Your task to perform on an android device: Open Yahoo.com Image 0: 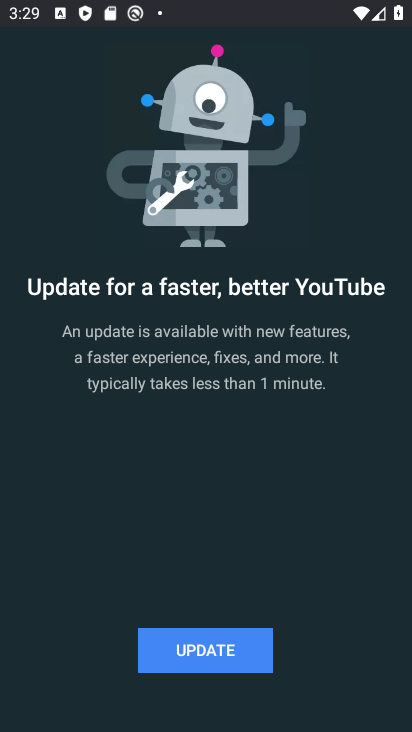
Step 0: press home button
Your task to perform on an android device: Open Yahoo.com Image 1: 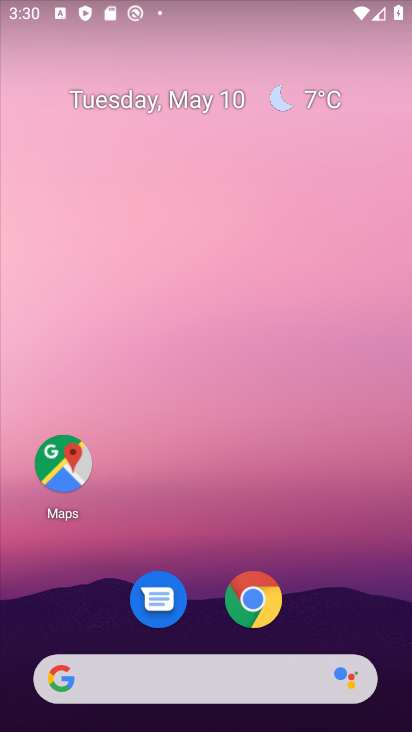
Step 1: drag from (279, 570) to (274, 174)
Your task to perform on an android device: Open Yahoo.com Image 2: 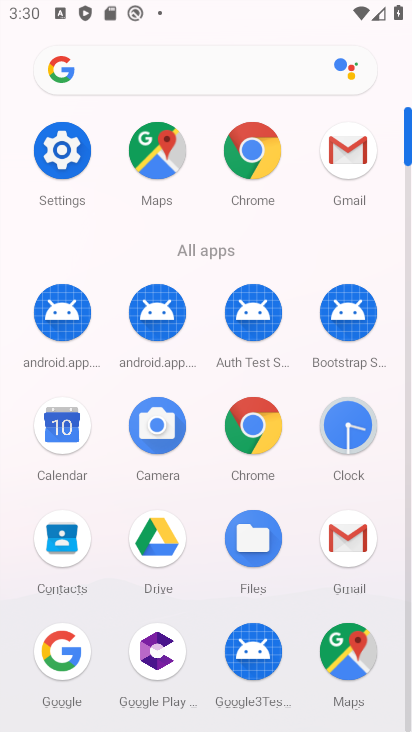
Step 2: click (241, 157)
Your task to perform on an android device: Open Yahoo.com Image 3: 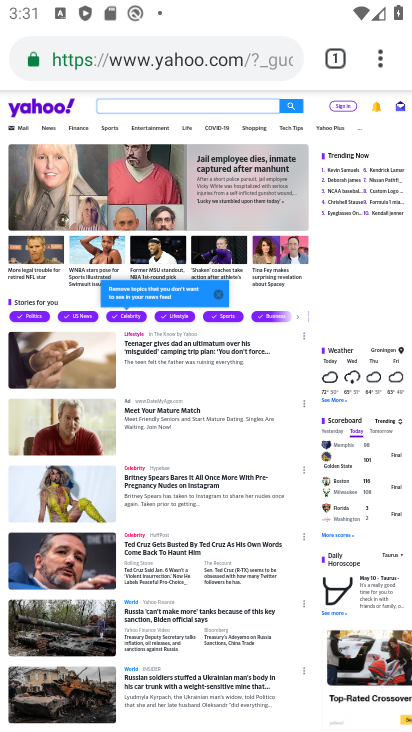
Step 3: task complete